Your task to perform on an android device: Is it going to rain tomorrow? Image 0: 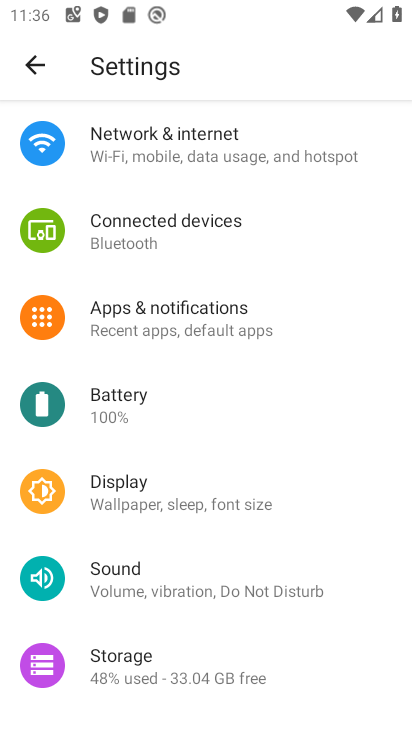
Step 0: press home button
Your task to perform on an android device: Is it going to rain tomorrow? Image 1: 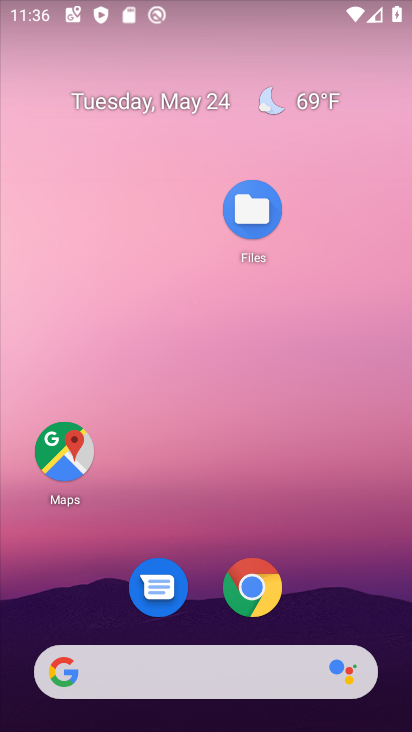
Step 1: click (260, 598)
Your task to perform on an android device: Is it going to rain tomorrow? Image 2: 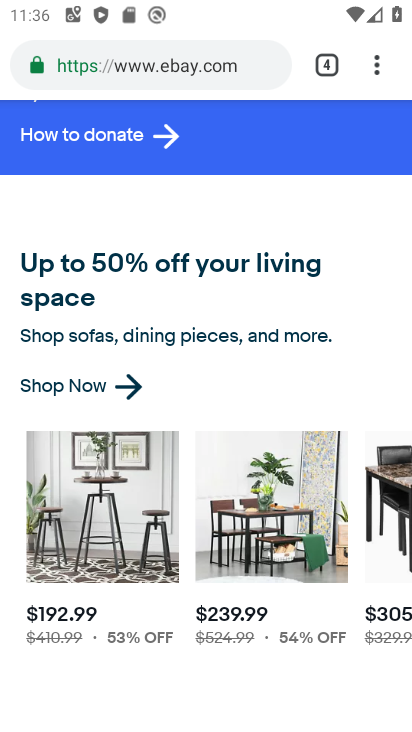
Step 2: click (324, 68)
Your task to perform on an android device: Is it going to rain tomorrow? Image 3: 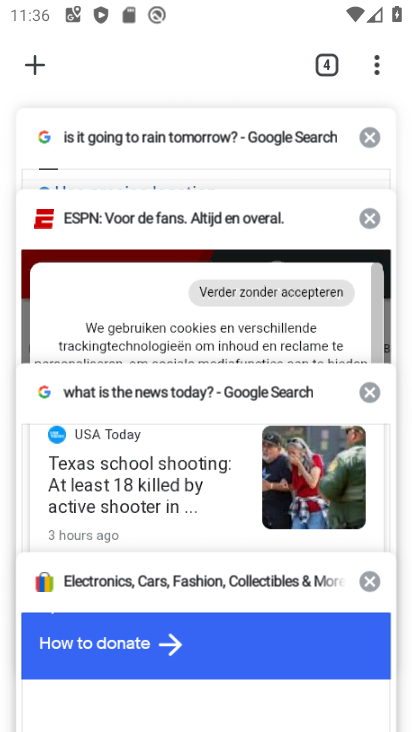
Step 3: click (246, 152)
Your task to perform on an android device: Is it going to rain tomorrow? Image 4: 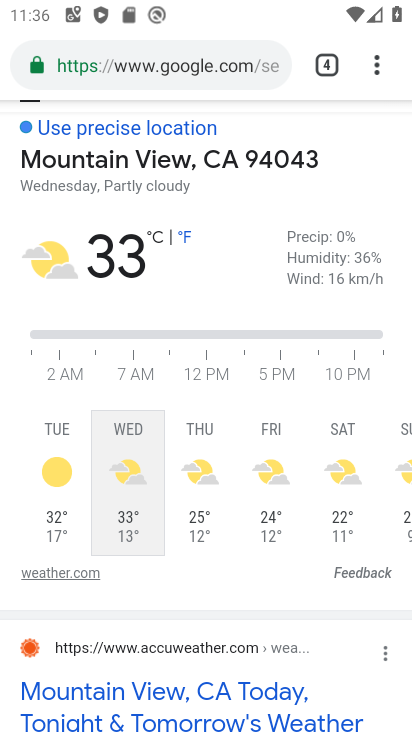
Step 4: task complete